Your task to perform on an android device: create a new album in the google photos Image 0: 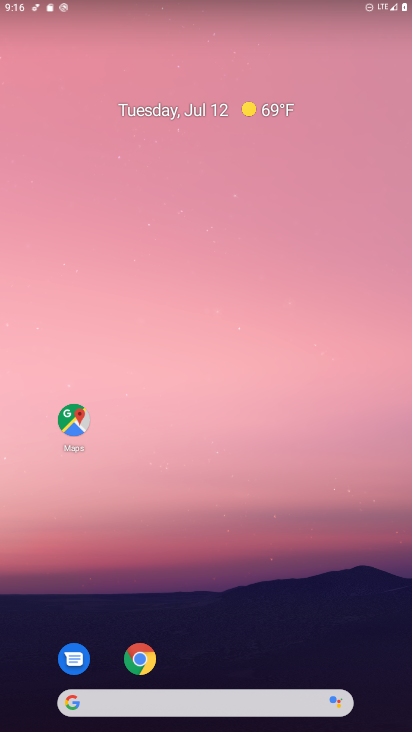
Step 0: drag from (224, 715) to (225, 646)
Your task to perform on an android device: create a new album in the google photos Image 1: 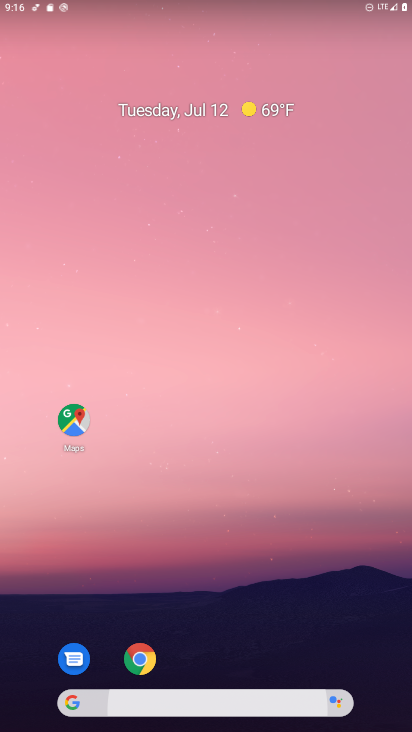
Step 1: drag from (225, 284) to (225, 140)
Your task to perform on an android device: create a new album in the google photos Image 2: 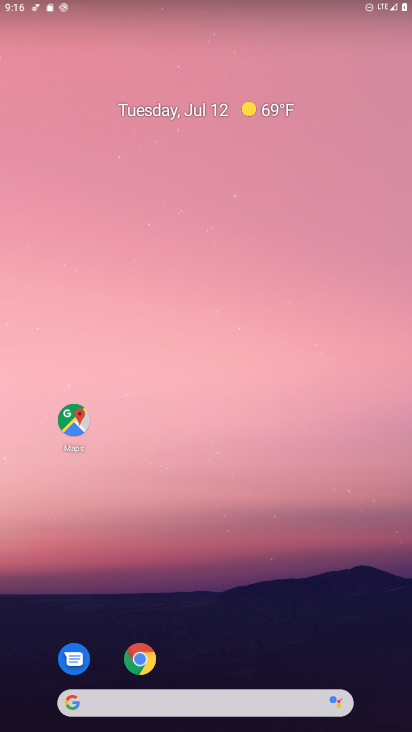
Step 2: drag from (263, 696) to (274, 62)
Your task to perform on an android device: create a new album in the google photos Image 3: 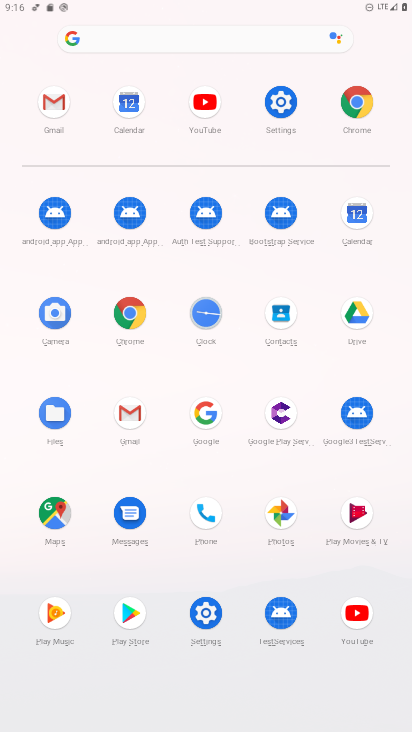
Step 3: click (285, 502)
Your task to perform on an android device: create a new album in the google photos Image 4: 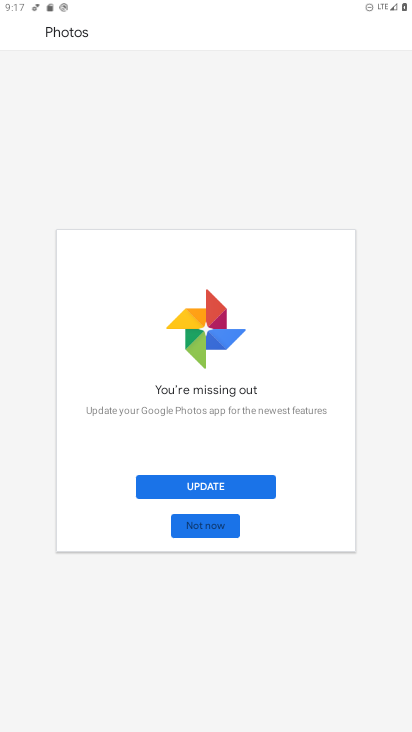
Step 4: task complete